Your task to perform on an android device: show emergency info Image 0: 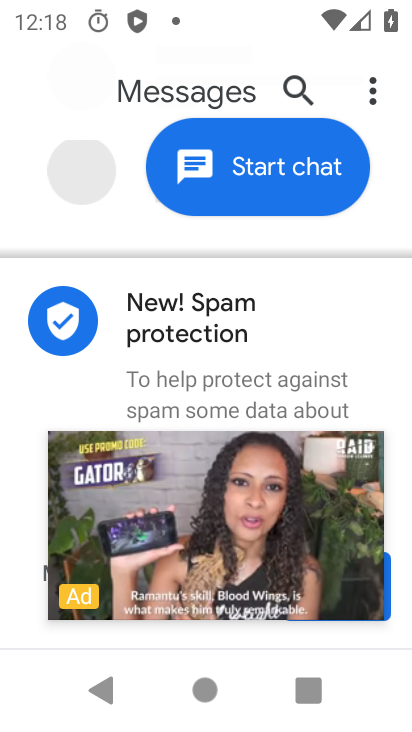
Step 0: task complete